Your task to perform on an android device: change the clock display to show seconds Image 0: 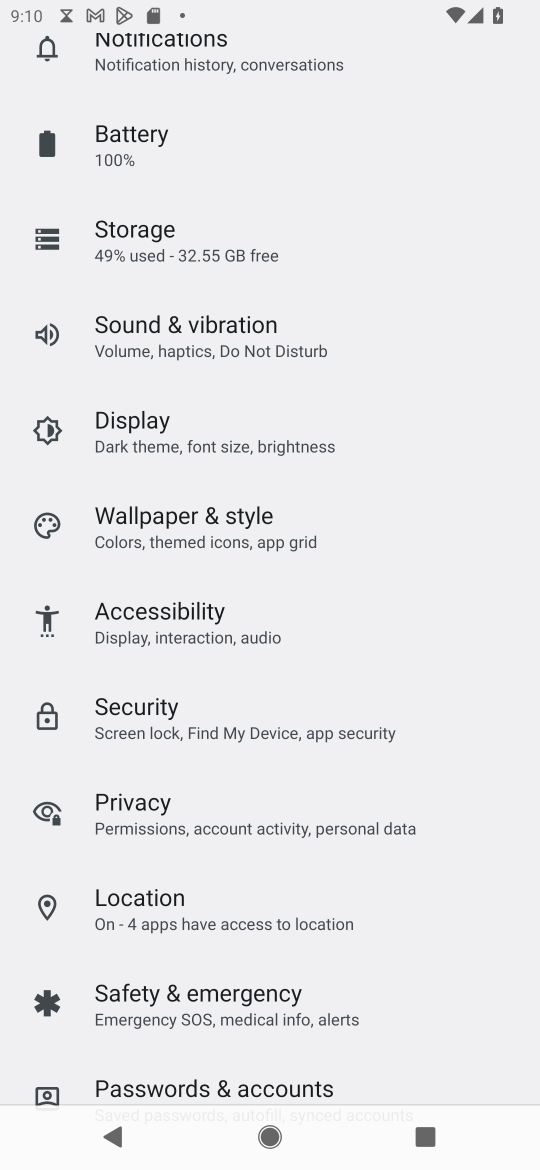
Step 0: press home button
Your task to perform on an android device: change the clock display to show seconds Image 1: 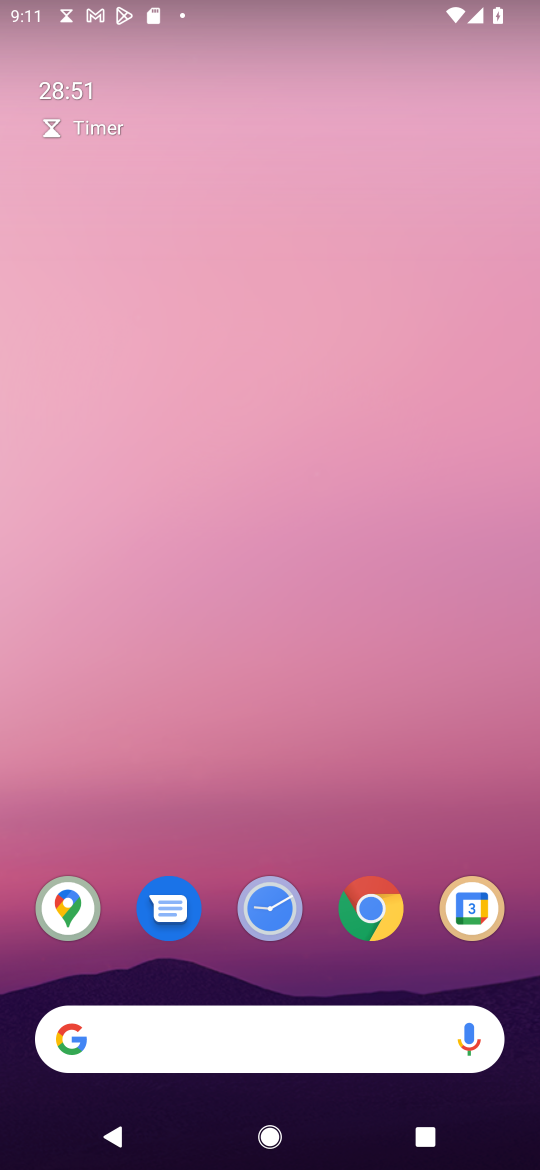
Step 1: drag from (268, 912) to (465, 128)
Your task to perform on an android device: change the clock display to show seconds Image 2: 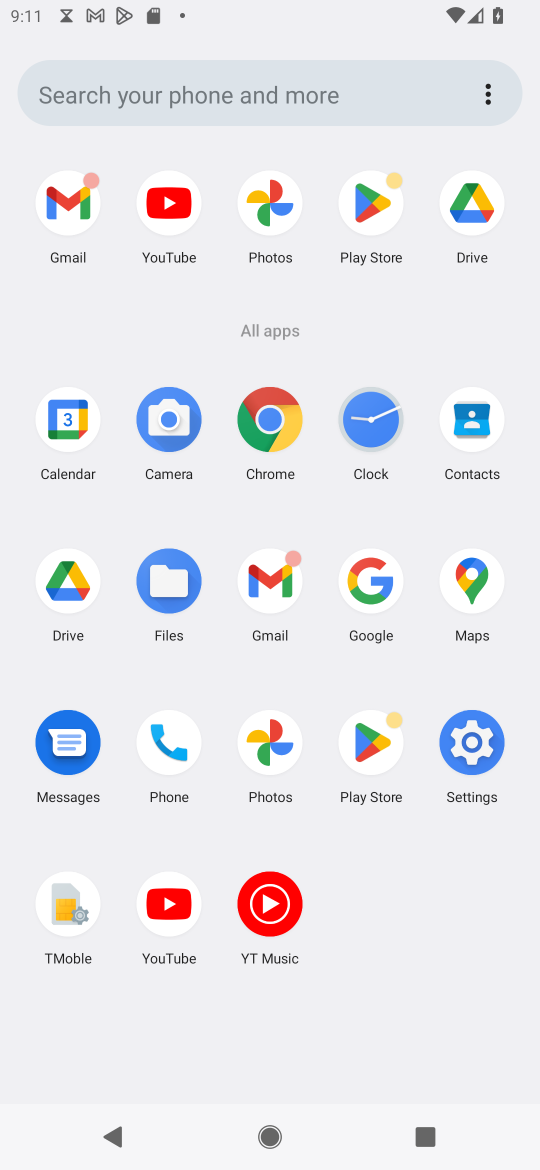
Step 2: click (362, 454)
Your task to perform on an android device: change the clock display to show seconds Image 3: 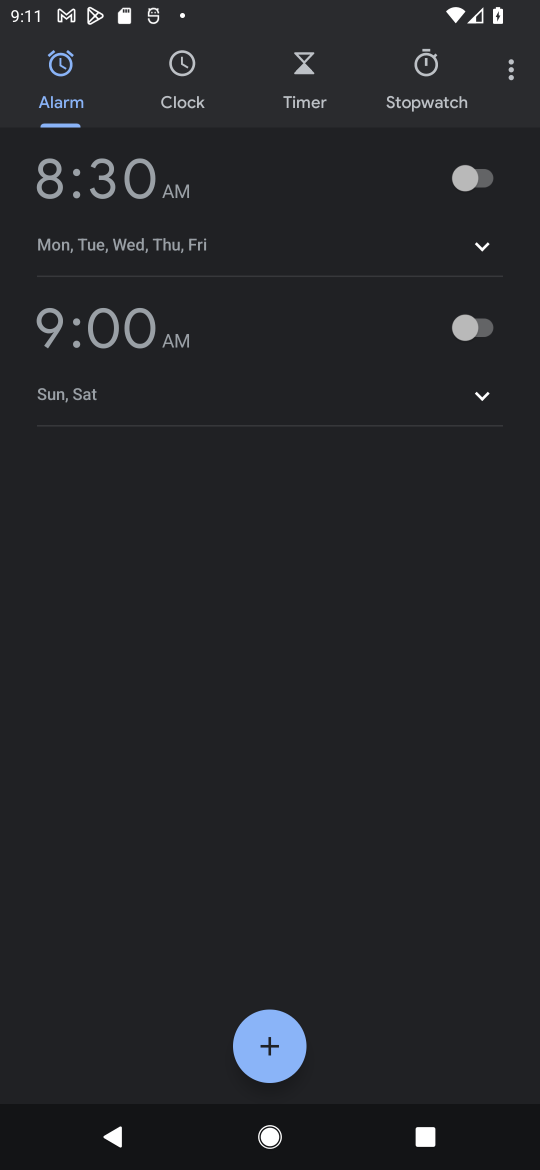
Step 3: click (521, 82)
Your task to perform on an android device: change the clock display to show seconds Image 4: 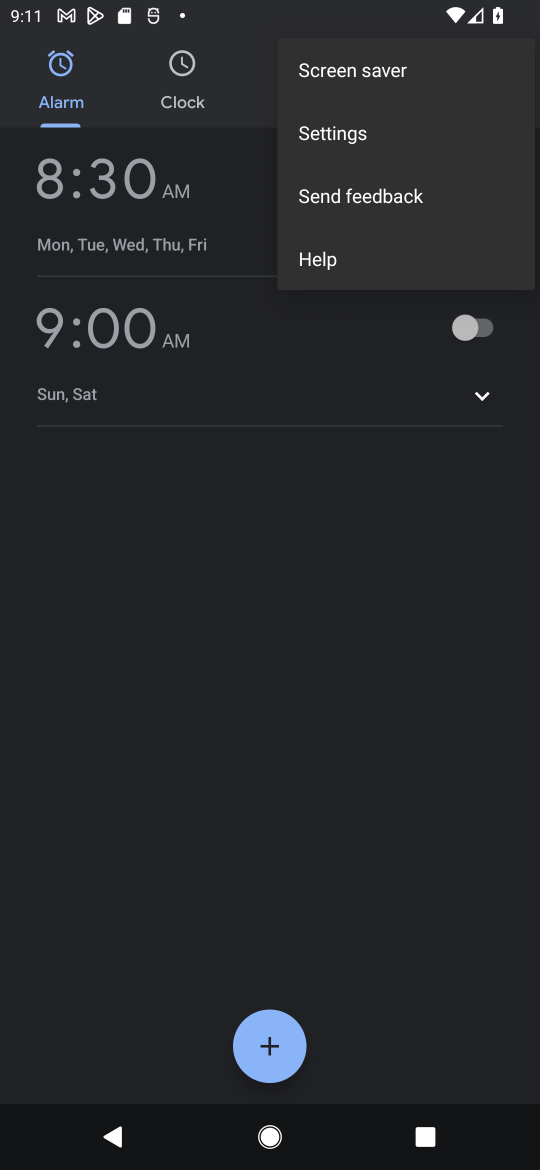
Step 4: click (388, 152)
Your task to perform on an android device: change the clock display to show seconds Image 5: 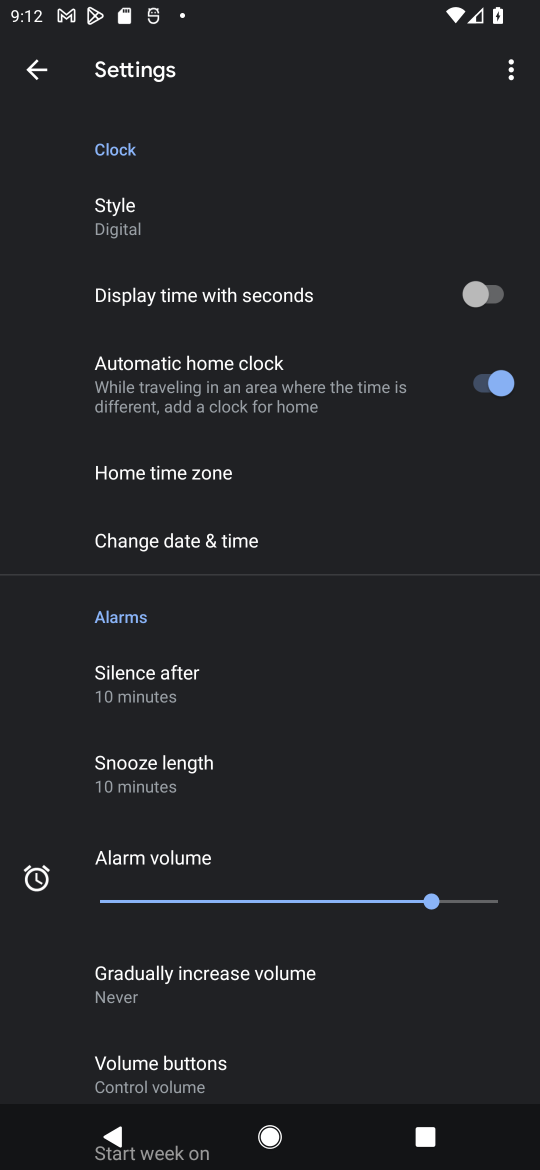
Step 5: click (466, 300)
Your task to perform on an android device: change the clock display to show seconds Image 6: 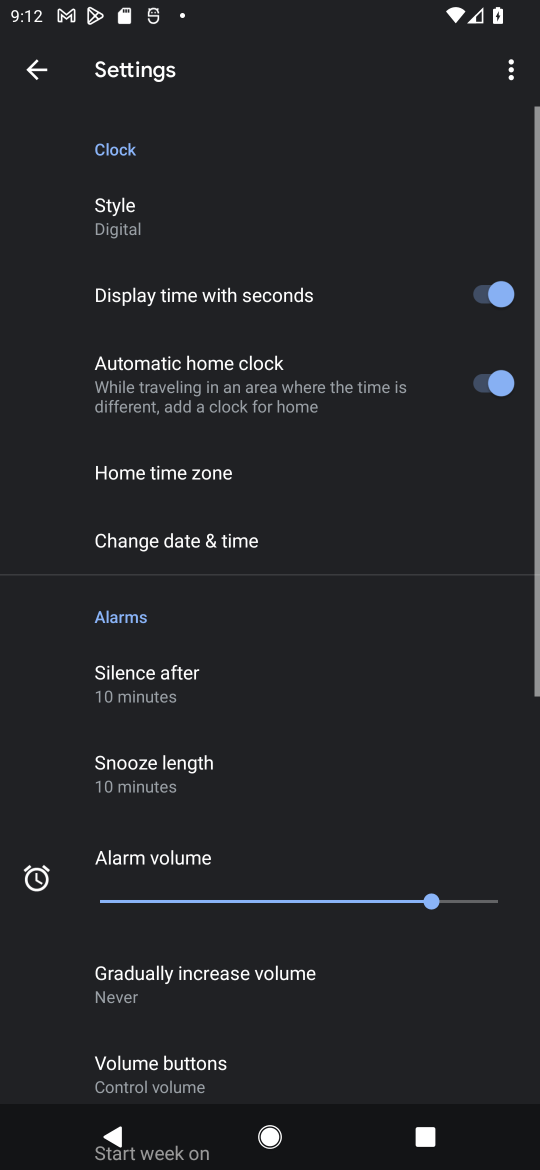
Step 6: task complete